Your task to perform on an android device: toggle translation in the chrome app Image 0: 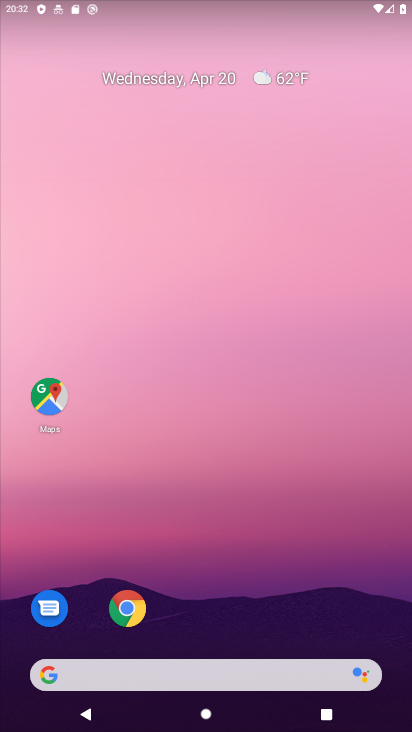
Step 0: click (124, 617)
Your task to perform on an android device: toggle translation in the chrome app Image 1: 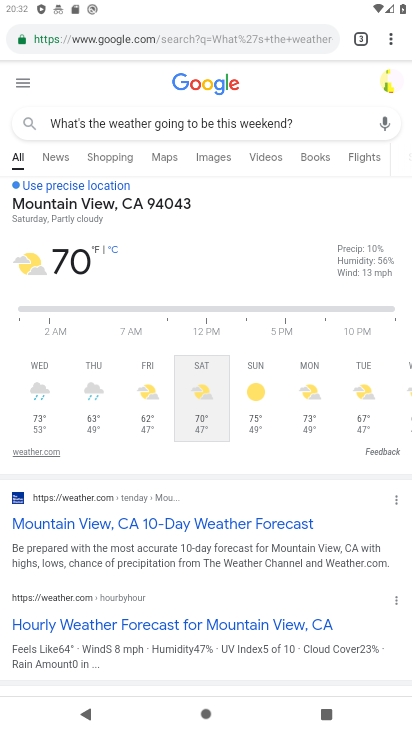
Step 1: drag from (386, 36) to (259, 429)
Your task to perform on an android device: toggle translation in the chrome app Image 2: 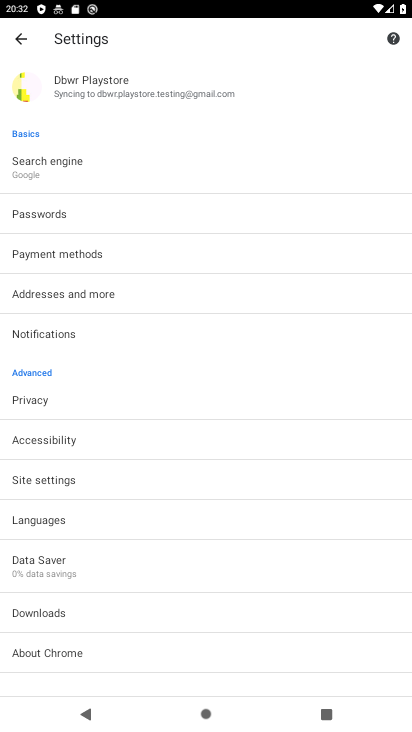
Step 2: click (71, 523)
Your task to perform on an android device: toggle translation in the chrome app Image 3: 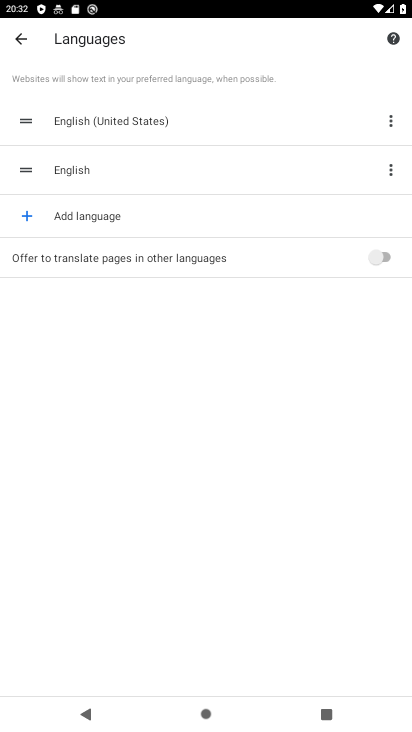
Step 3: click (393, 260)
Your task to perform on an android device: toggle translation in the chrome app Image 4: 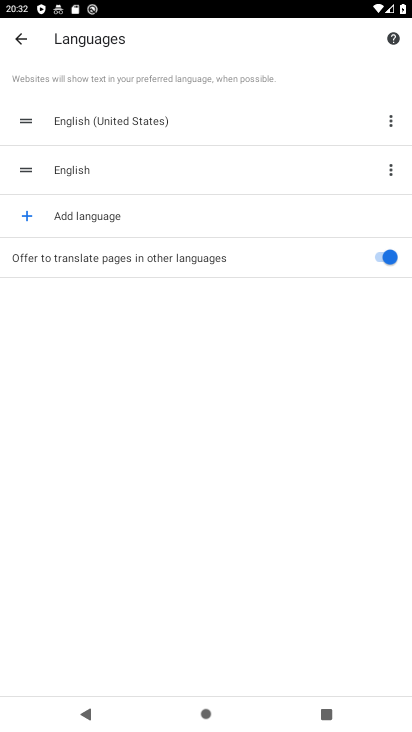
Step 4: task complete